Your task to perform on an android device: turn off improve location accuracy Image 0: 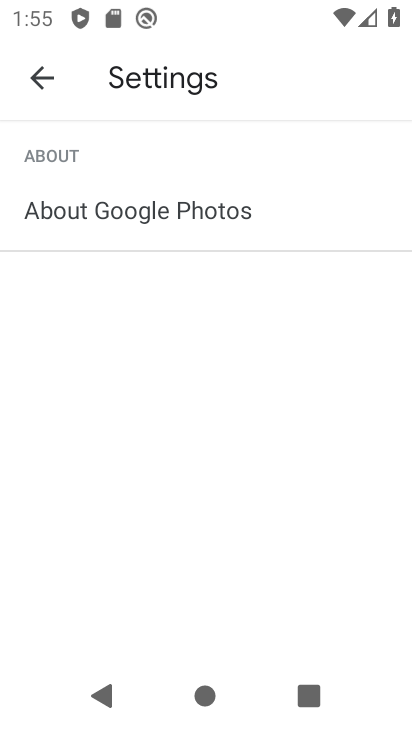
Step 0: press home button
Your task to perform on an android device: turn off improve location accuracy Image 1: 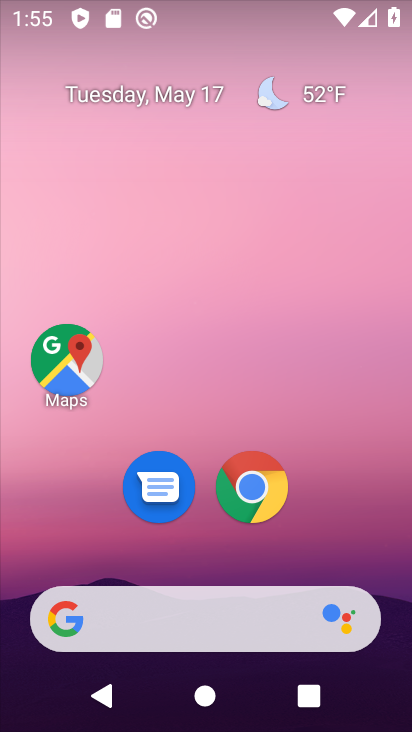
Step 1: drag from (396, 646) to (361, 166)
Your task to perform on an android device: turn off improve location accuracy Image 2: 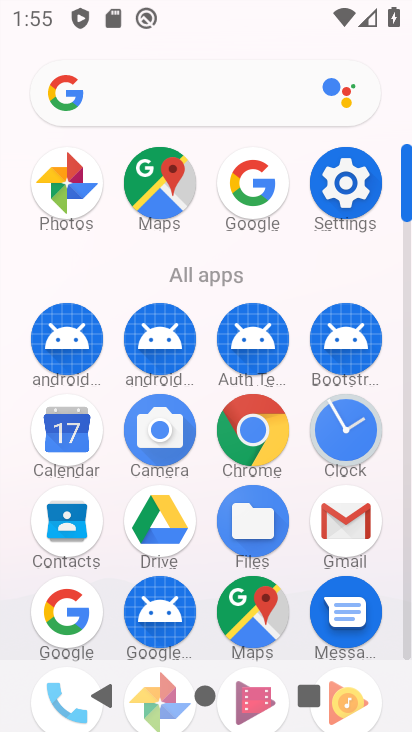
Step 2: click (340, 198)
Your task to perform on an android device: turn off improve location accuracy Image 3: 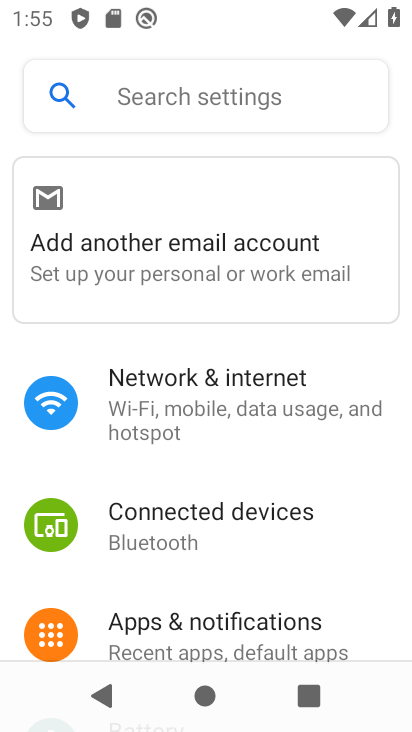
Step 3: click (302, 377)
Your task to perform on an android device: turn off improve location accuracy Image 4: 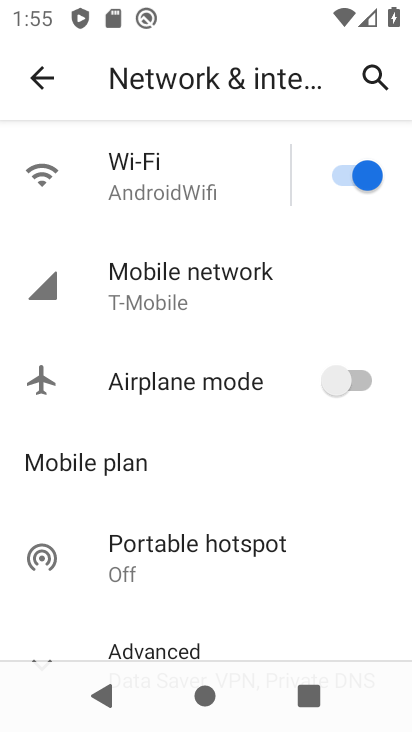
Step 4: click (46, 74)
Your task to perform on an android device: turn off improve location accuracy Image 5: 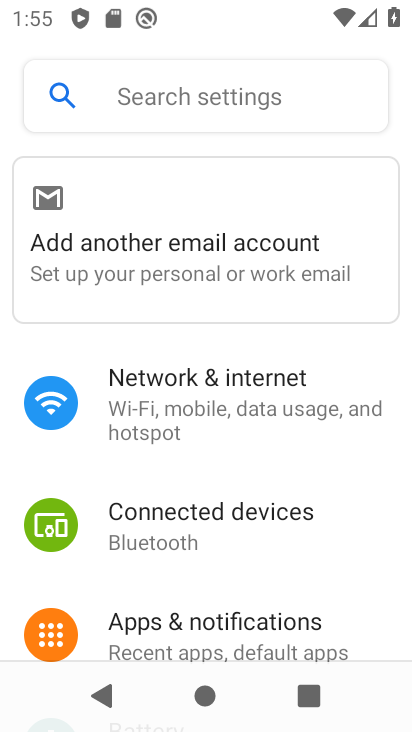
Step 5: drag from (338, 594) to (349, 412)
Your task to perform on an android device: turn off improve location accuracy Image 6: 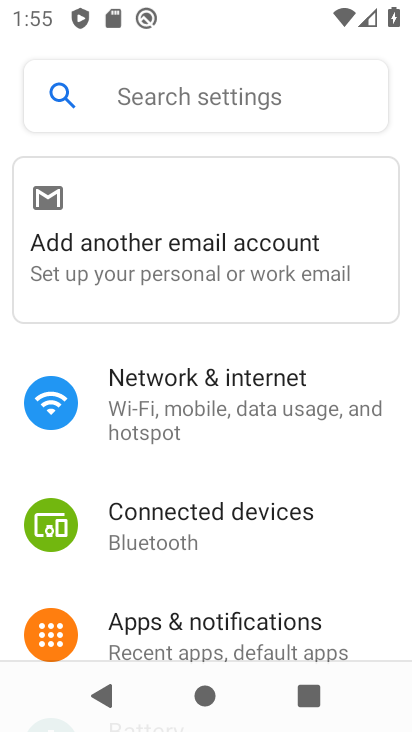
Step 6: drag from (381, 538) to (372, 441)
Your task to perform on an android device: turn off improve location accuracy Image 7: 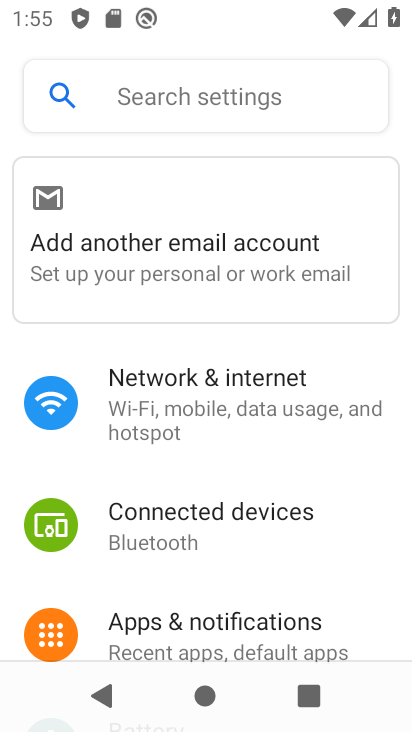
Step 7: click (356, 627)
Your task to perform on an android device: turn off improve location accuracy Image 8: 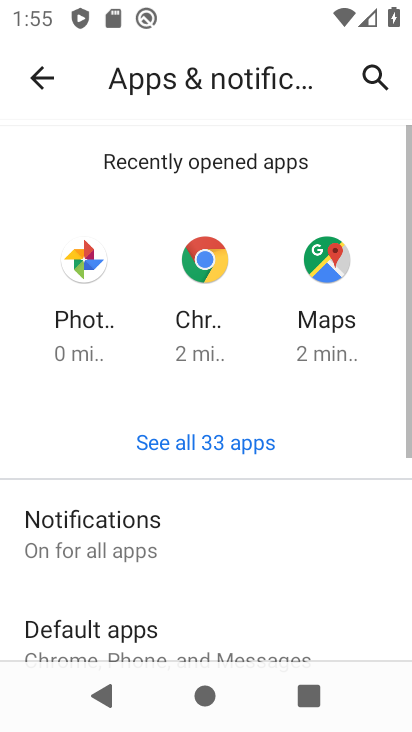
Step 8: click (38, 87)
Your task to perform on an android device: turn off improve location accuracy Image 9: 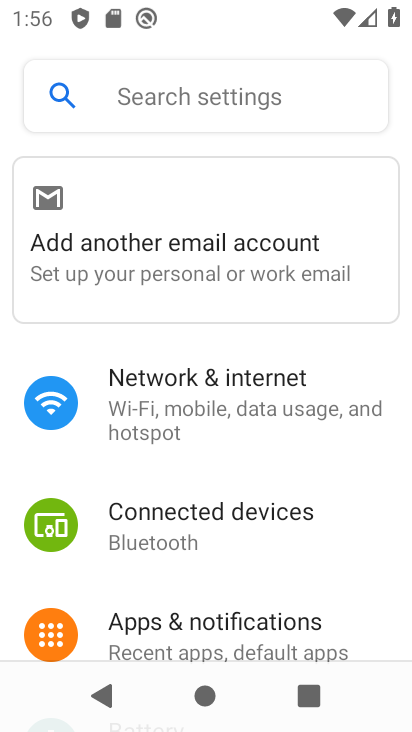
Step 9: task complete